Your task to perform on an android device: Open Google Maps and go to "Timeline" Image 0: 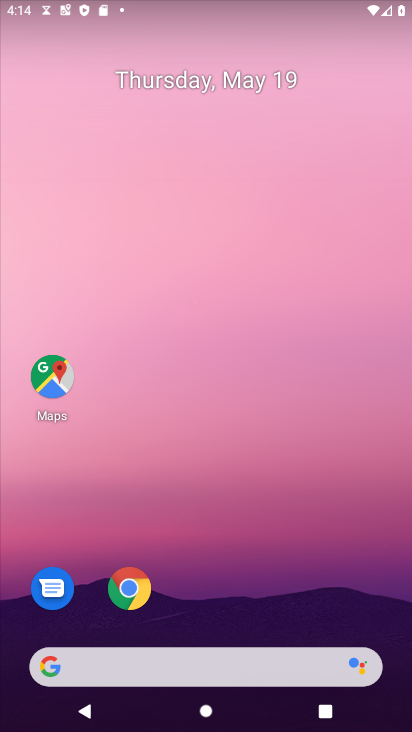
Step 0: click (60, 377)
Your task to perform on an android device: Open Google Maps and go to "Timeline" Image 1: 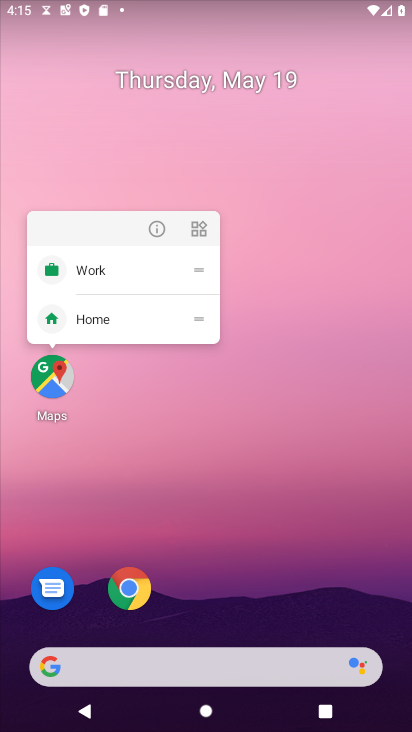
Step 1: click (52, 378)
Your task to perform on an android device: Open Google Maps and go to "Timeline" Image 2: 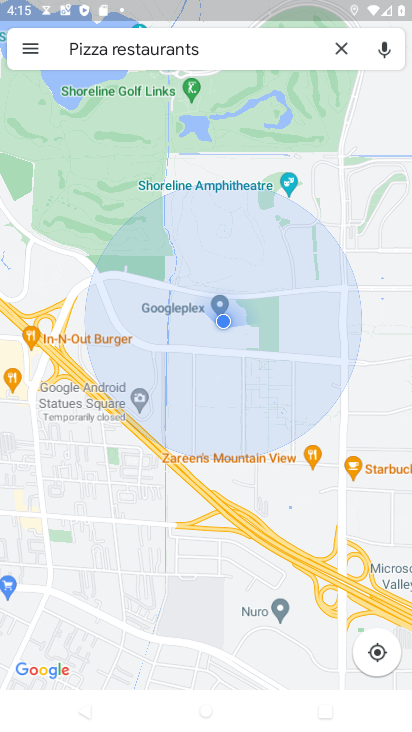
Step 2: click (37, 44)
Your task to perform on an android device: Open Google Maps and go to "Timeline" Image 3: 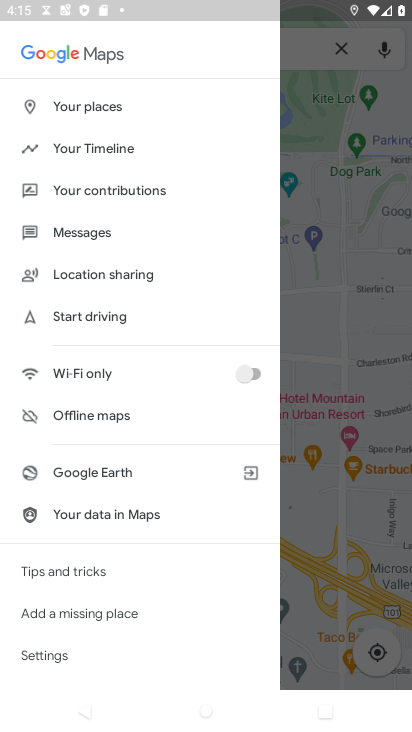
Step 3: click (99, 149)
Your task to perform on an android device: Open Google Maps and go to "Timeline" Image 4: 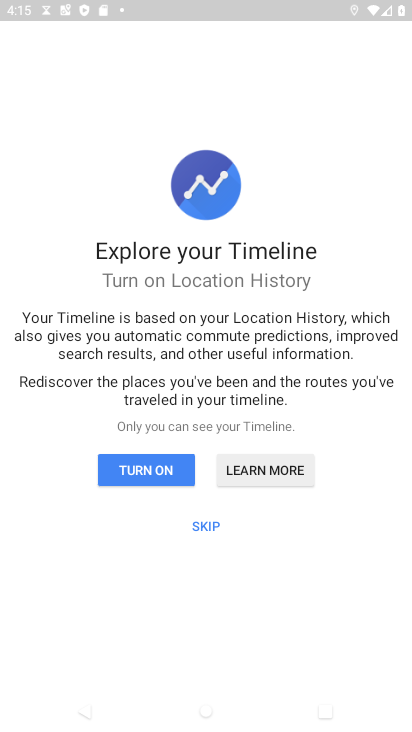
Step 4: click (209, 525)
Your task to perform on an android device: Open Google Maps and go to "Timeline" Image 5: 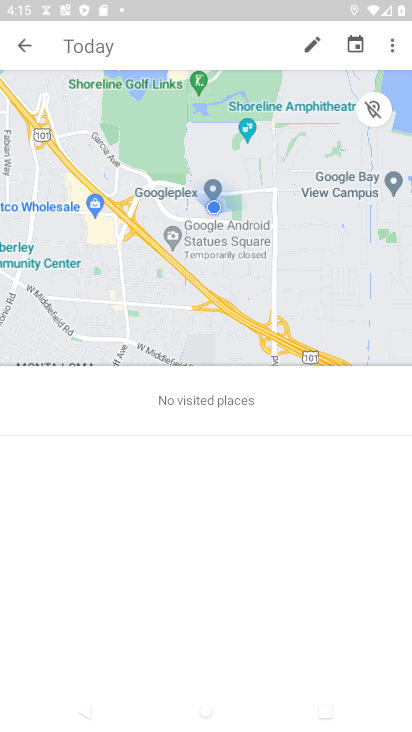
Step 5: task complete